Your task to perform on an android device: open app "Truecaller" (install if not already installed) Image 0: 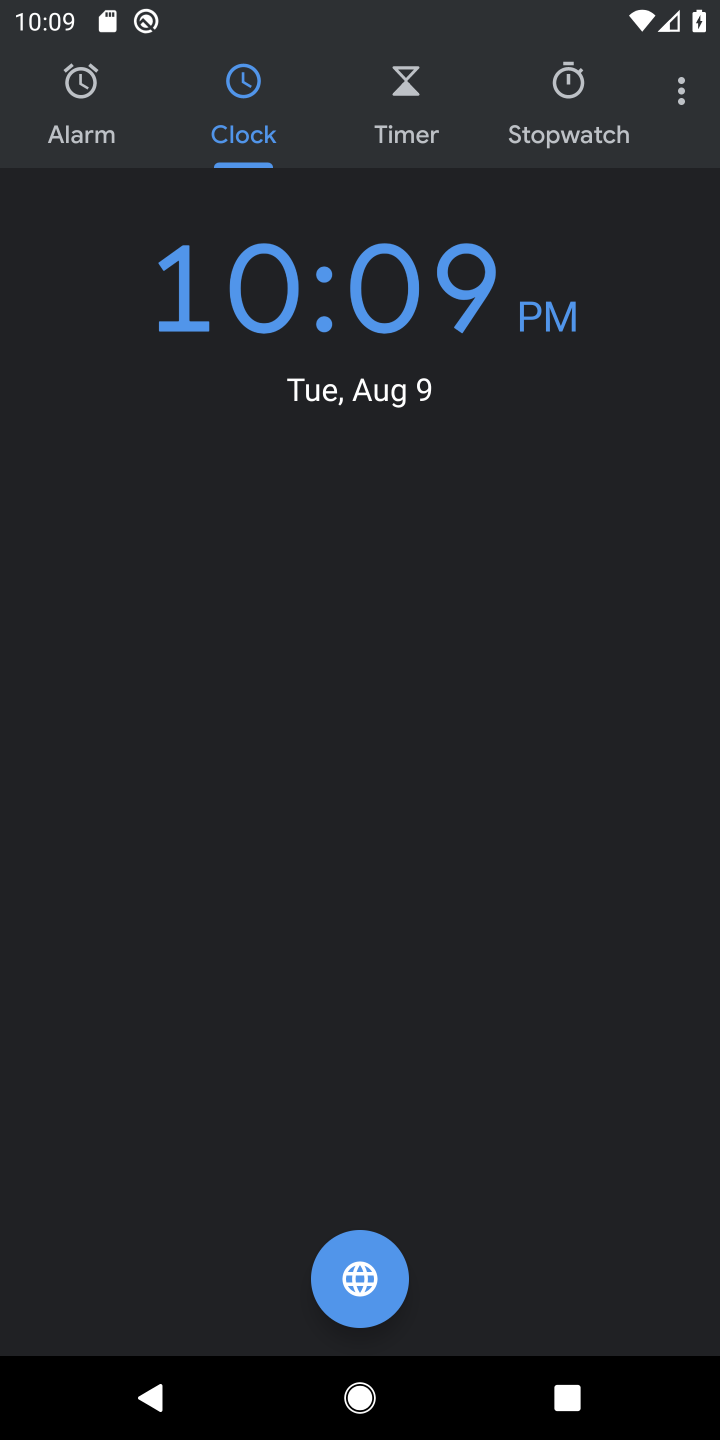
Step 0: press home button
Your task to perform on an android device: open app "Truecaller" (install if not already installed) Image 1: 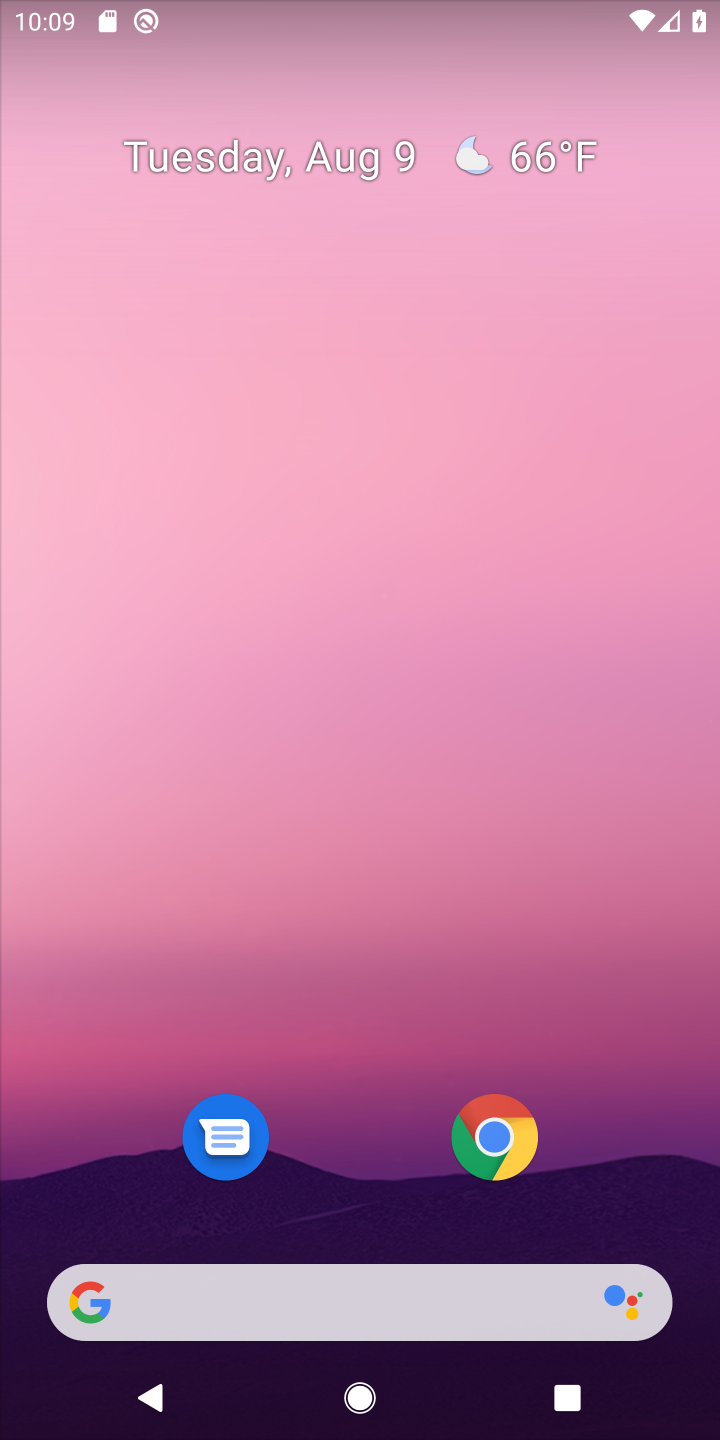
Step 1: drag from (300, 701) to (300, 234)
Your task to perform on an android device: open app "Truecaller" (install if not already installed) Image 2: 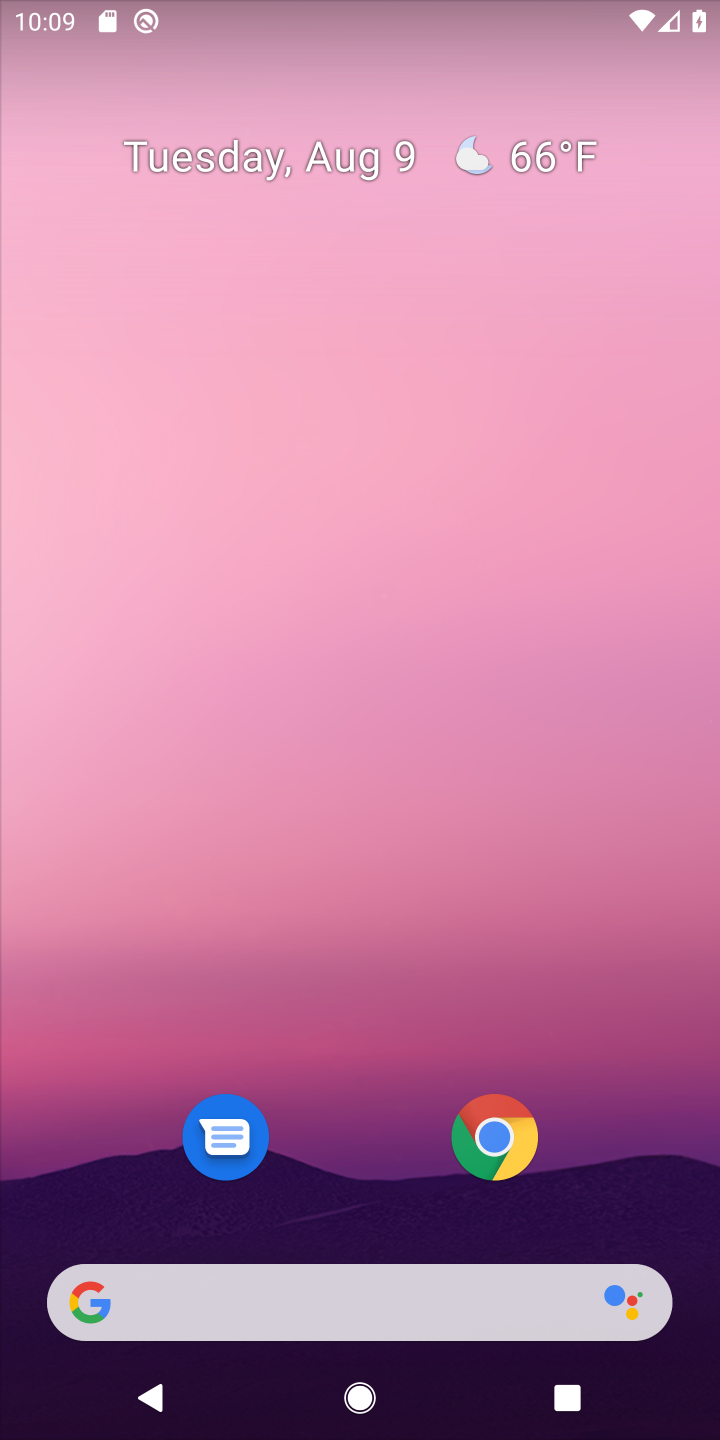
Step 2: drag from (381, 473) to (401, 321)
Your task to perform on an android device: open app "Truecaller" (install if not already installed) Image 3: 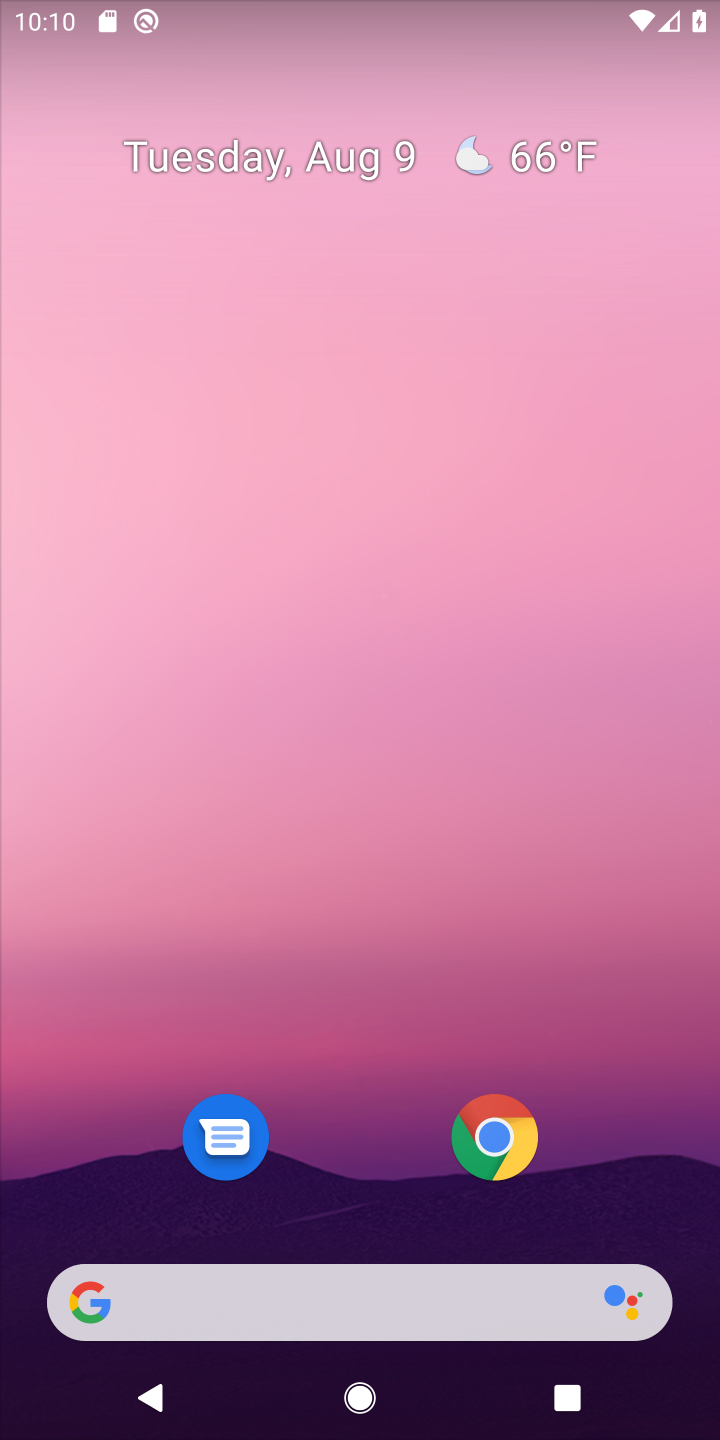
Step 3: drag from (323, 1153) to (347, 312)
Your task to perform on an android device: open app "Truecaller" (install if not already installed) Image 4: 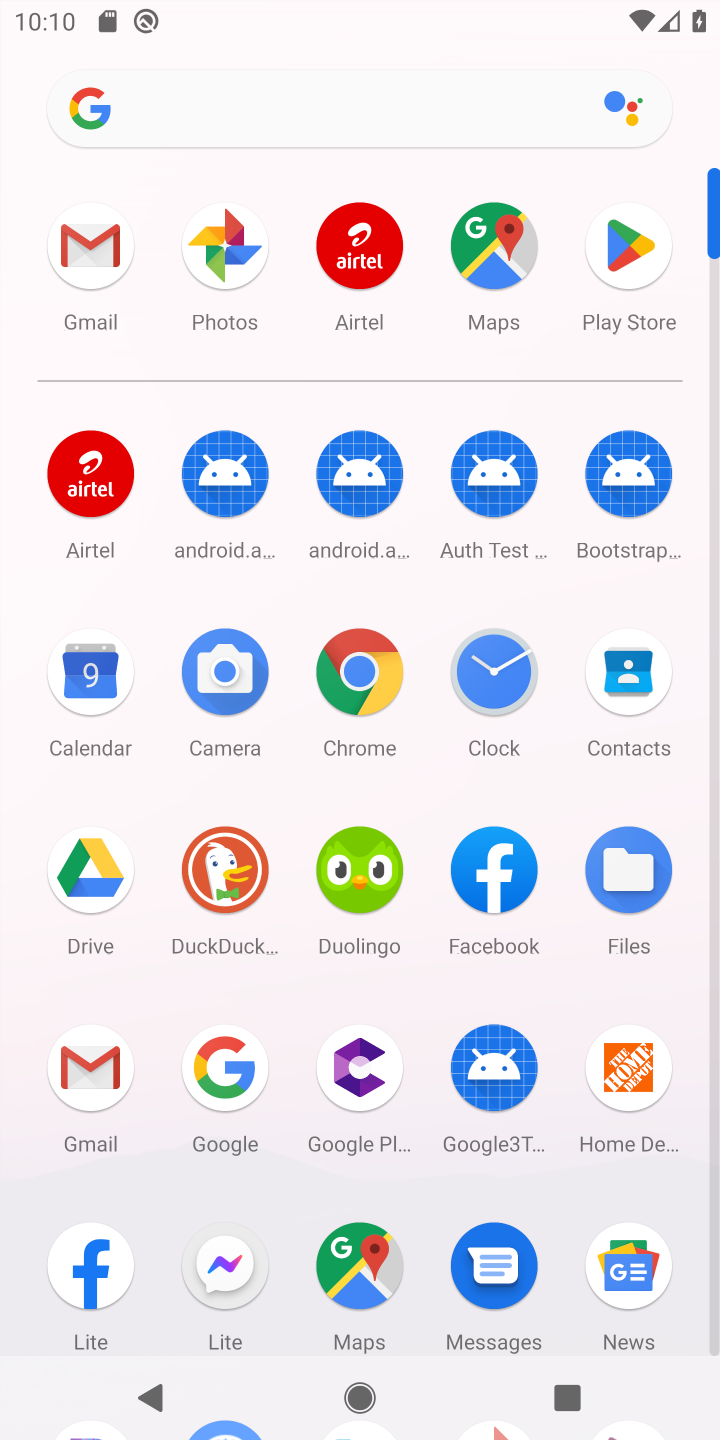
Step 4: click (636, 253)
Your task to perform on an android device: open app "Truecaller" (install if not already installed) Image 5: 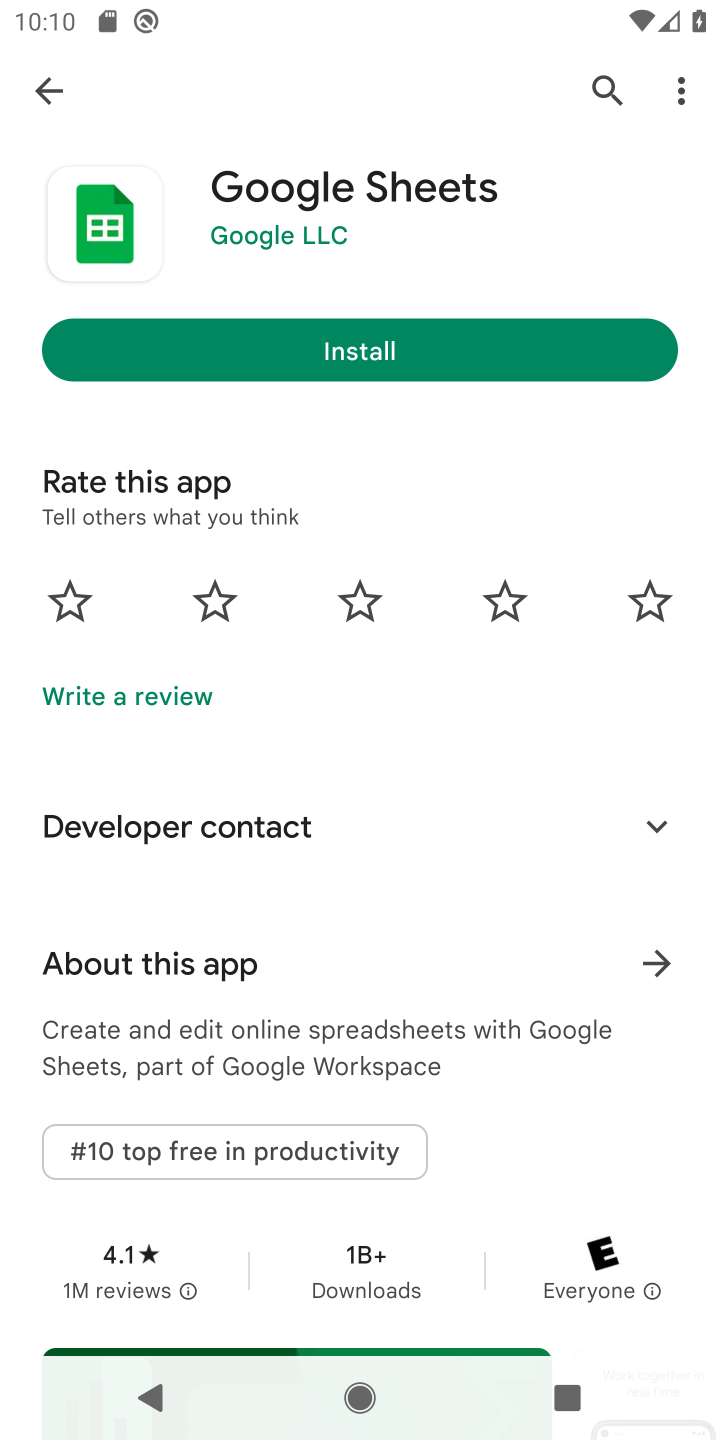
Step 5: click (613, 78)
Your task to perform on an android device: open app "Truecaller" (install if not already installed) Image 6: 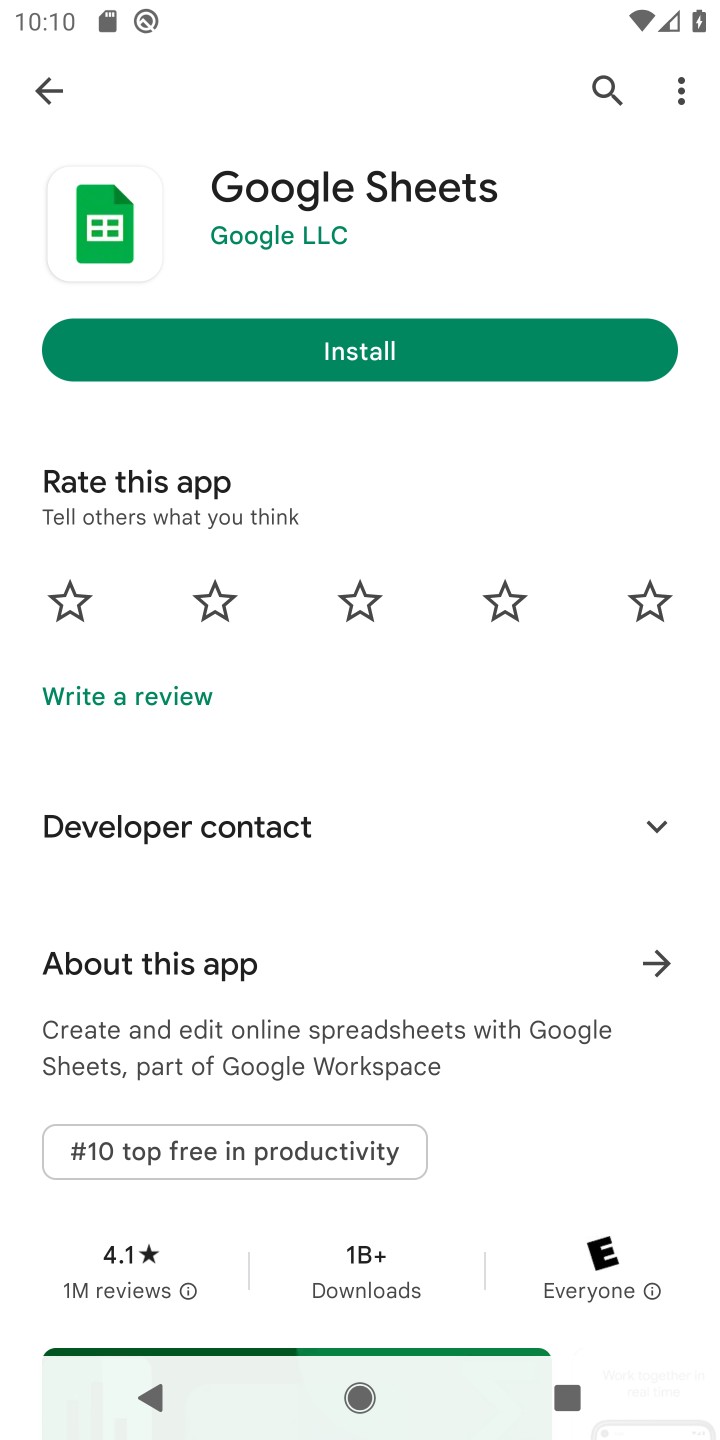
Step 6: click (611, 94)
Your task to perform on an android device: open app "Truecaller" (install if not already installed) Image 7: 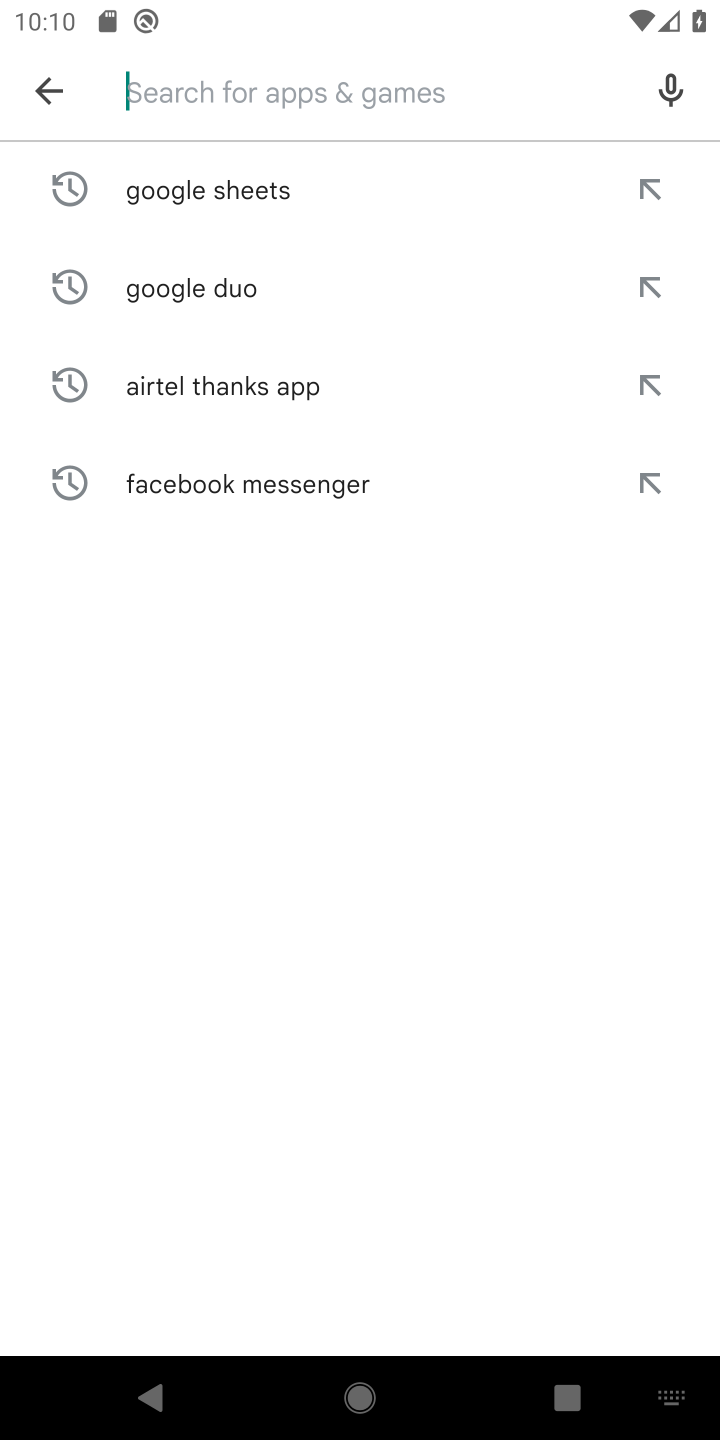
Step 7: type "Truecaller"
Your task to perform on an android device: open app "Truecaller" (install if not already installed) Image 8: 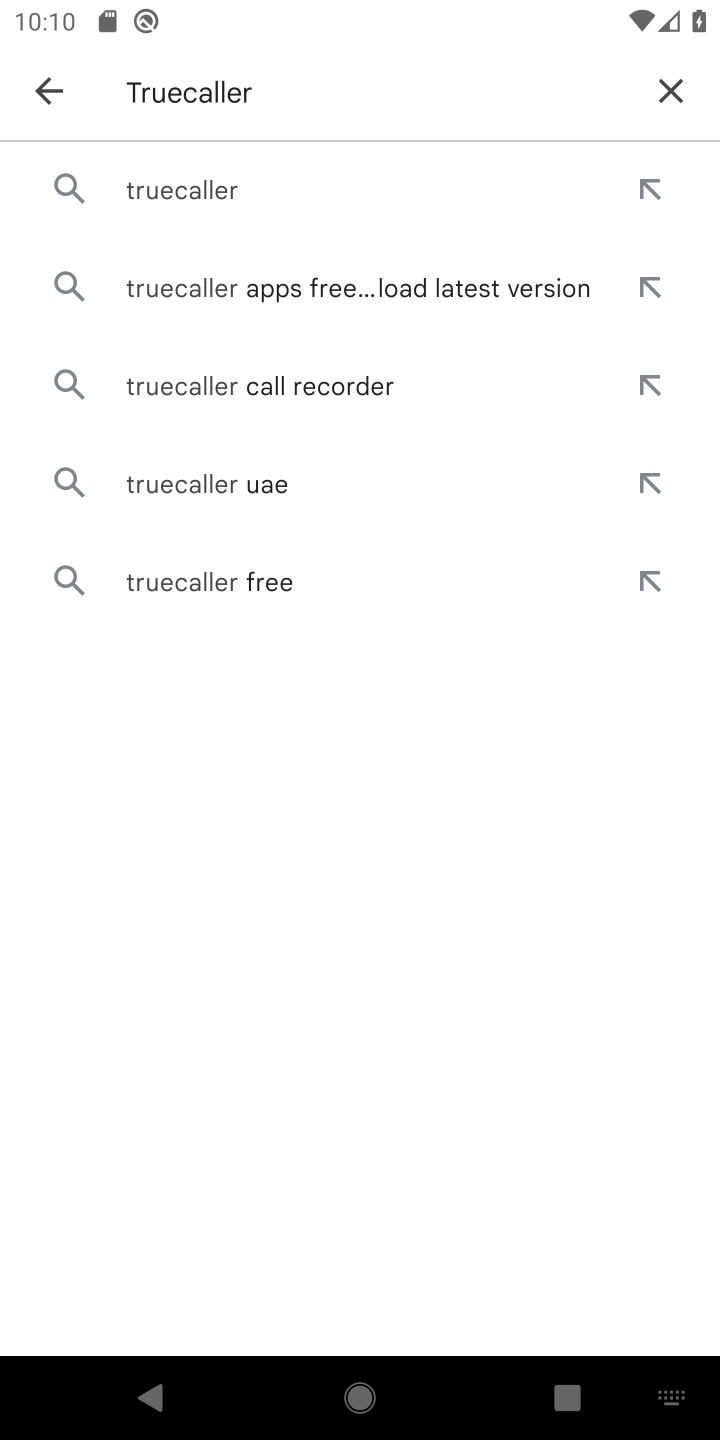
Step 8: click (256, 185)
Your task to perform on an android device: open app "Truecaller" (install if not already installed) Image 9: 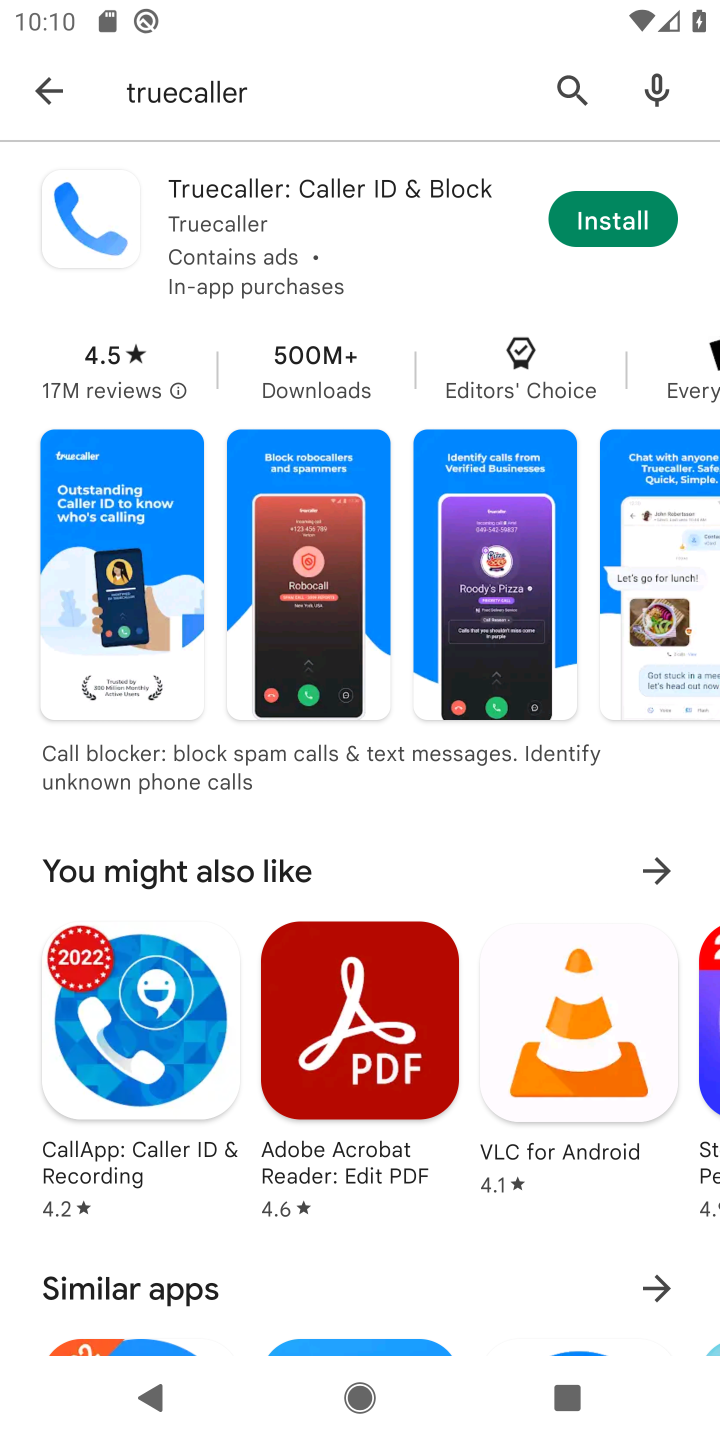
Step 9: click (577, 215)
Your task to perform on an android device: open app "Truecaller" (install if not already installed) Image 10: 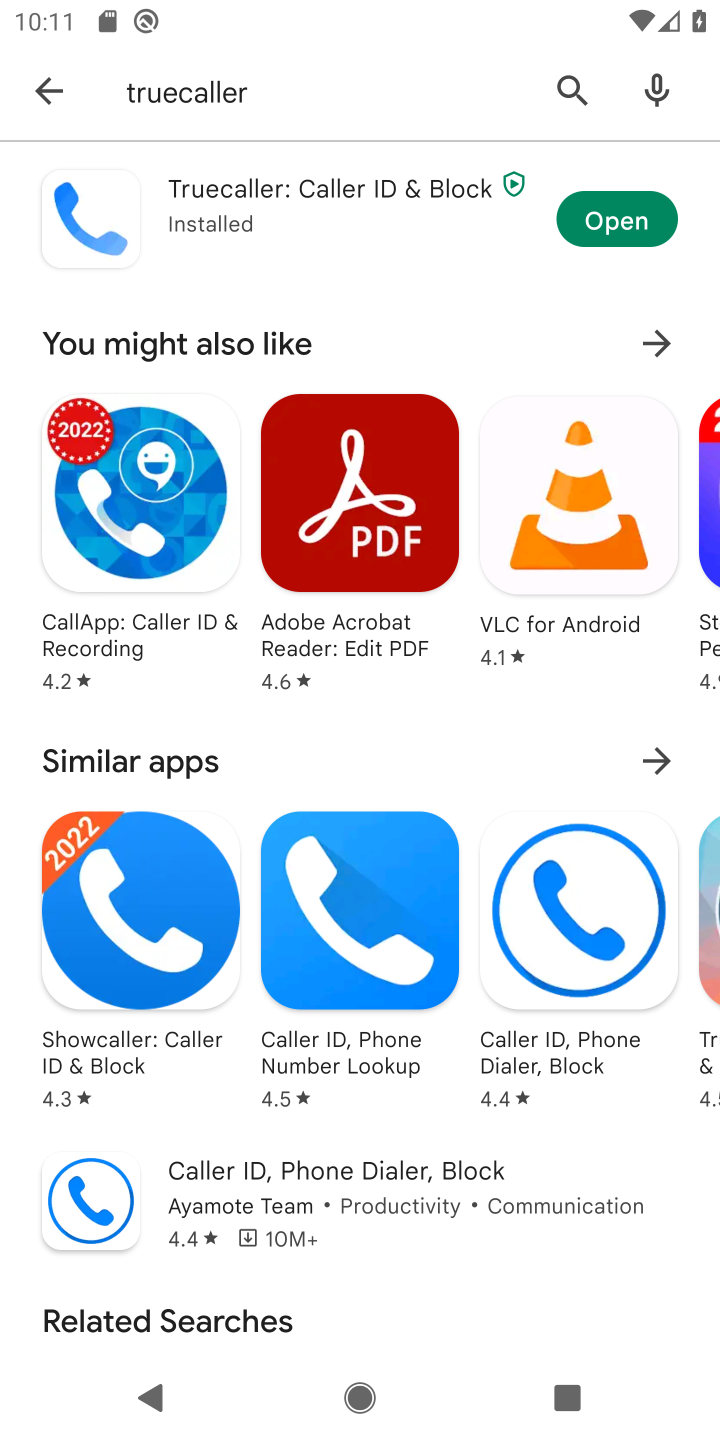
Step 10: click (583, 225)
Your task to perform on an android device: open app "Truecaller" (install if not already installed) Image 11: 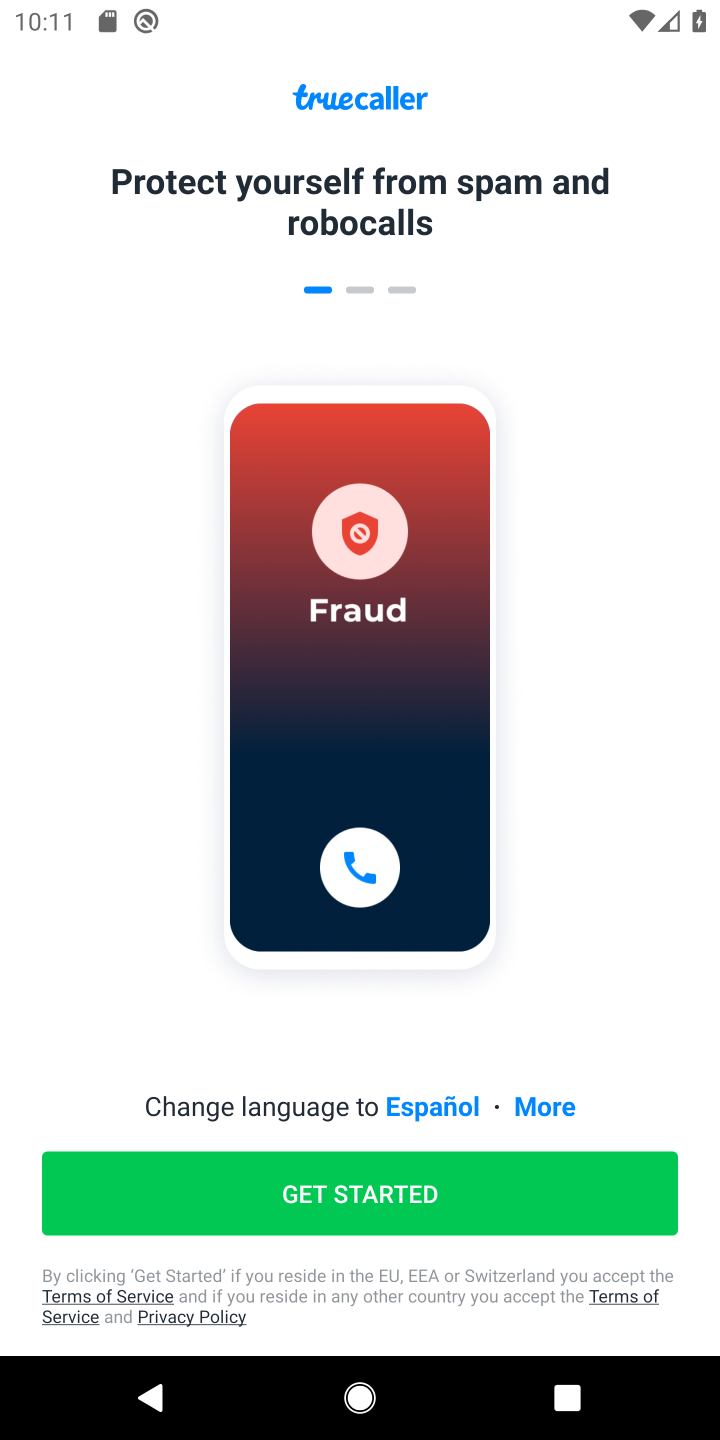
Step 11: task complete